Your task to perform on an android device: Search for sushi restaurants on Maps Image 0: 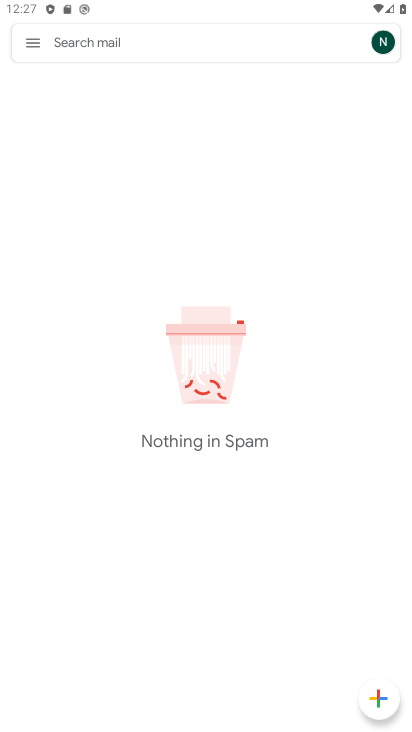
Step 0: press home button
Your task to perform on an android device: Search for sushi restaurants on Maps Image 1: 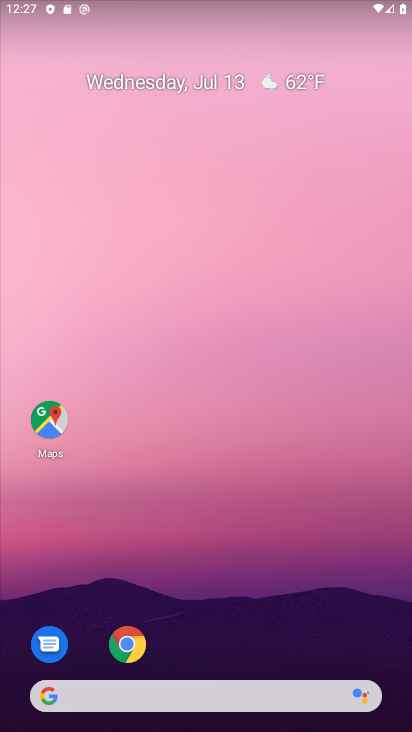
Step 1: click (49, 408)
Your task to perform on an android device: Search for sushi restaurants on Maps Image 2: 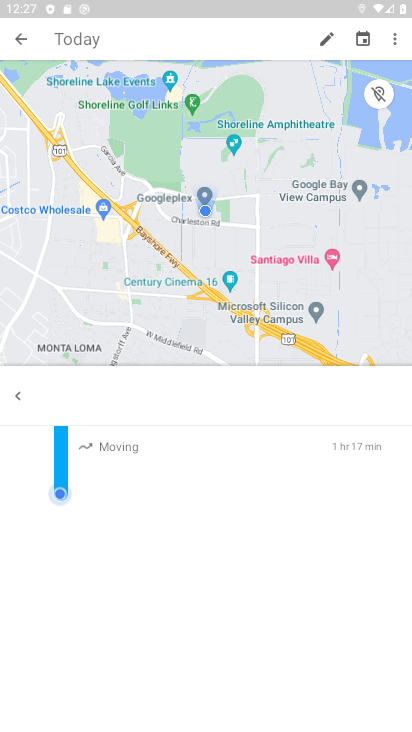
Step 2: click (49, 408)
Your task to perform on an android device: Search for sushi restaurants on Maps Image 3: 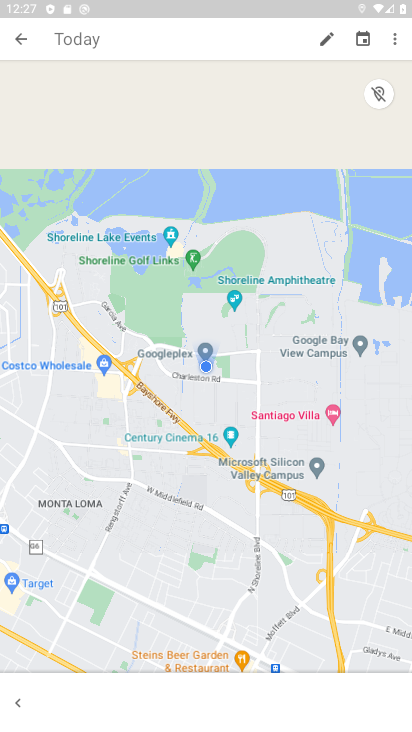
Step 3: click (22, 29)
Your task to perform on an android device: Search for sushi restaurants on Maps Image 4: 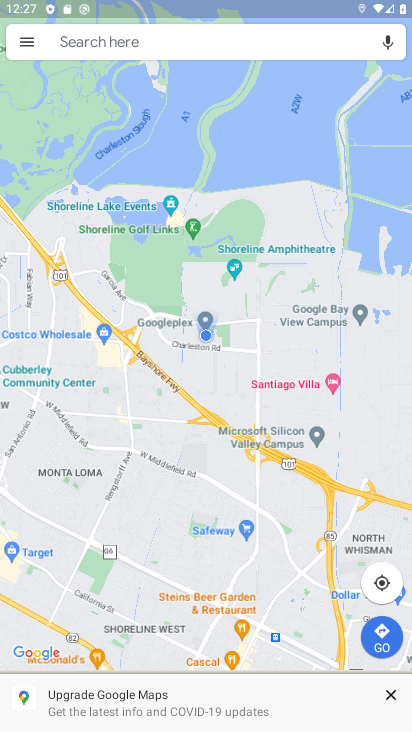
Step 4: click (179, 33)
Your task to perform on an android device: Search for sushi restaurants on Maps Image 5: 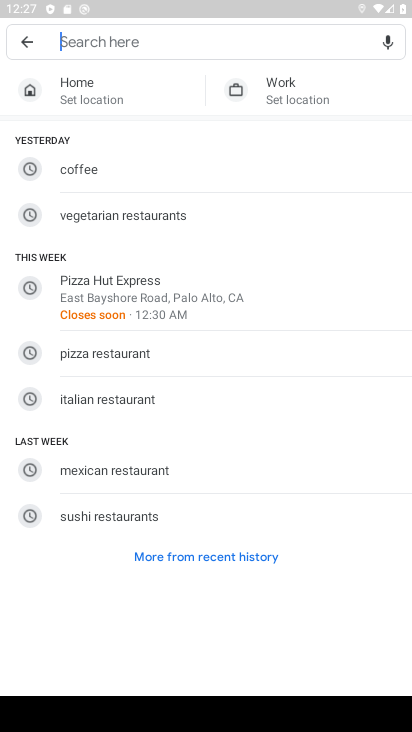
Step 5: type "sushi restaurants"
Your task to perform on an android device: Search for sushi restaurants on Maps Image 6: 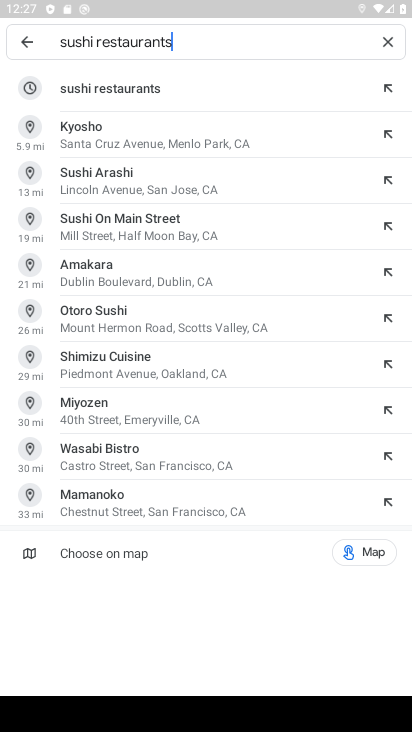
Step 6: click (120, 96)
Your task to perform on an android device: Search for sushi restaurants on Maps Image 7: 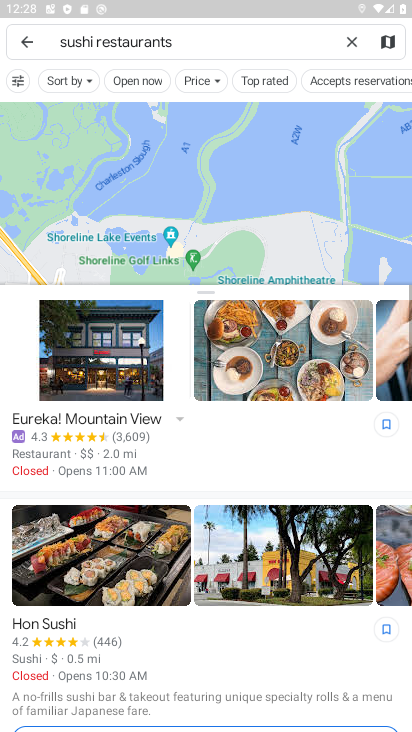
Step 7: task complete